Your task to perform on an android device: Open internet settings Image 0: 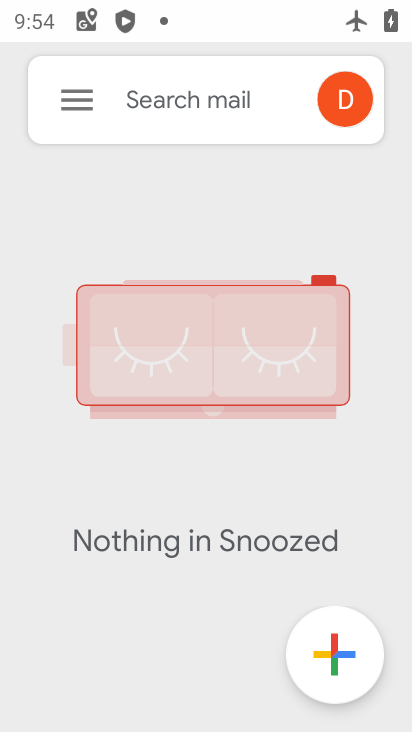
Step 0: press home button
Your task to perform on an android device: Open internet settings Image 1: 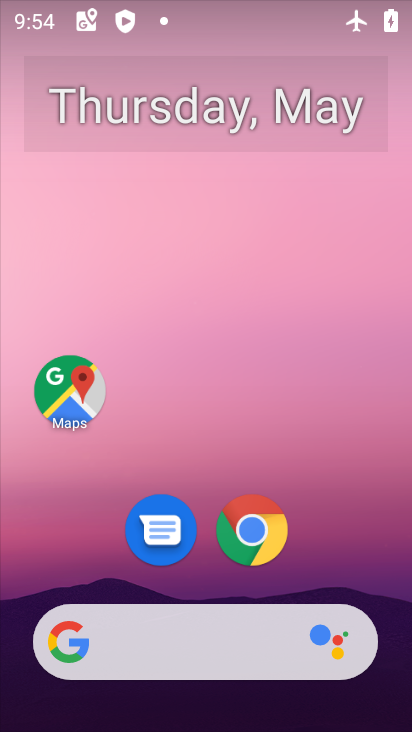
Step 1: drag from (232, 717) to (358, 74)
Your task to perform on an android device: Open internet settings Image 2: 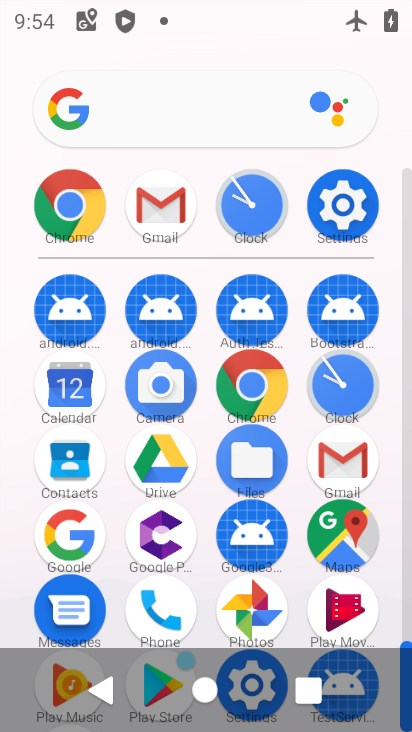
Step 2: click (334, 198)
Your task to perform on an android device: Open internet settings Image 3: 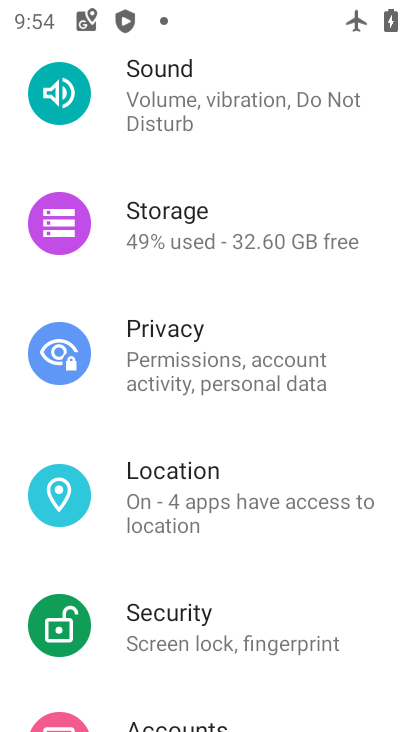
Step 3: drag from (348, 163) to (368, 645)
Your task to perform on an android device: Open internet settings Image 4: 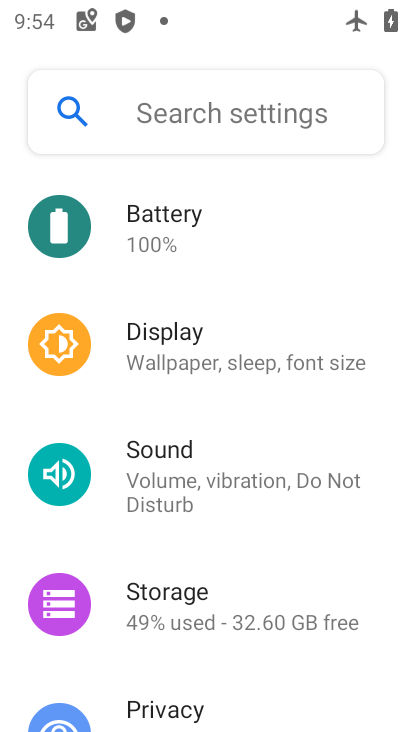
Step 4: drag from (280, 259) to (228, 725)
Your task to perform on an android device: Open internet settings Image 5: 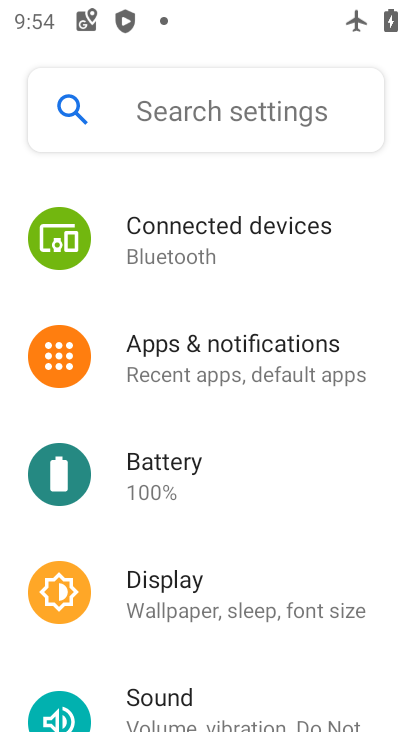
Step 5: drag from (328, 266) to (272, 727)
Your task to perform on an android device: Open internet settings Image 6: 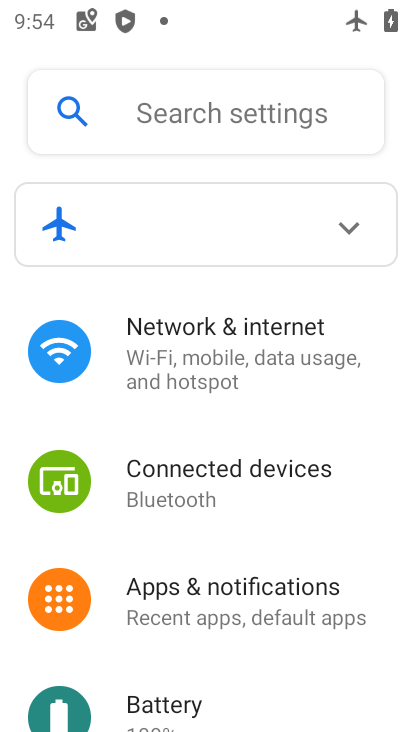
Step 6: click (260, 351)
Your task to perform on an android device: Open internet settings Image 7: 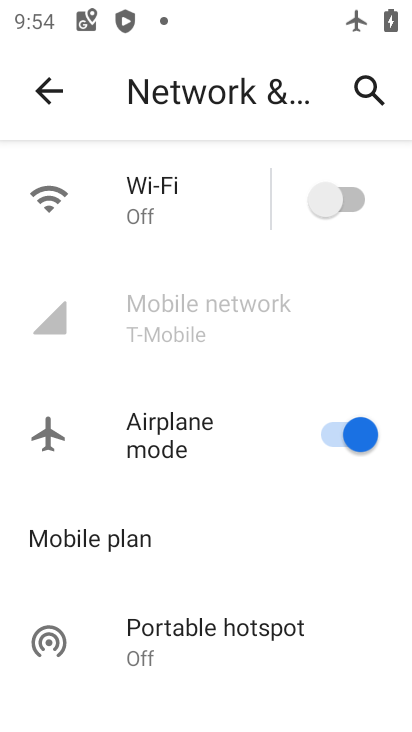
Step 7: task complete